Your task to perform on an android device: install app "Upside-Cash back on gas & food" Image 0: 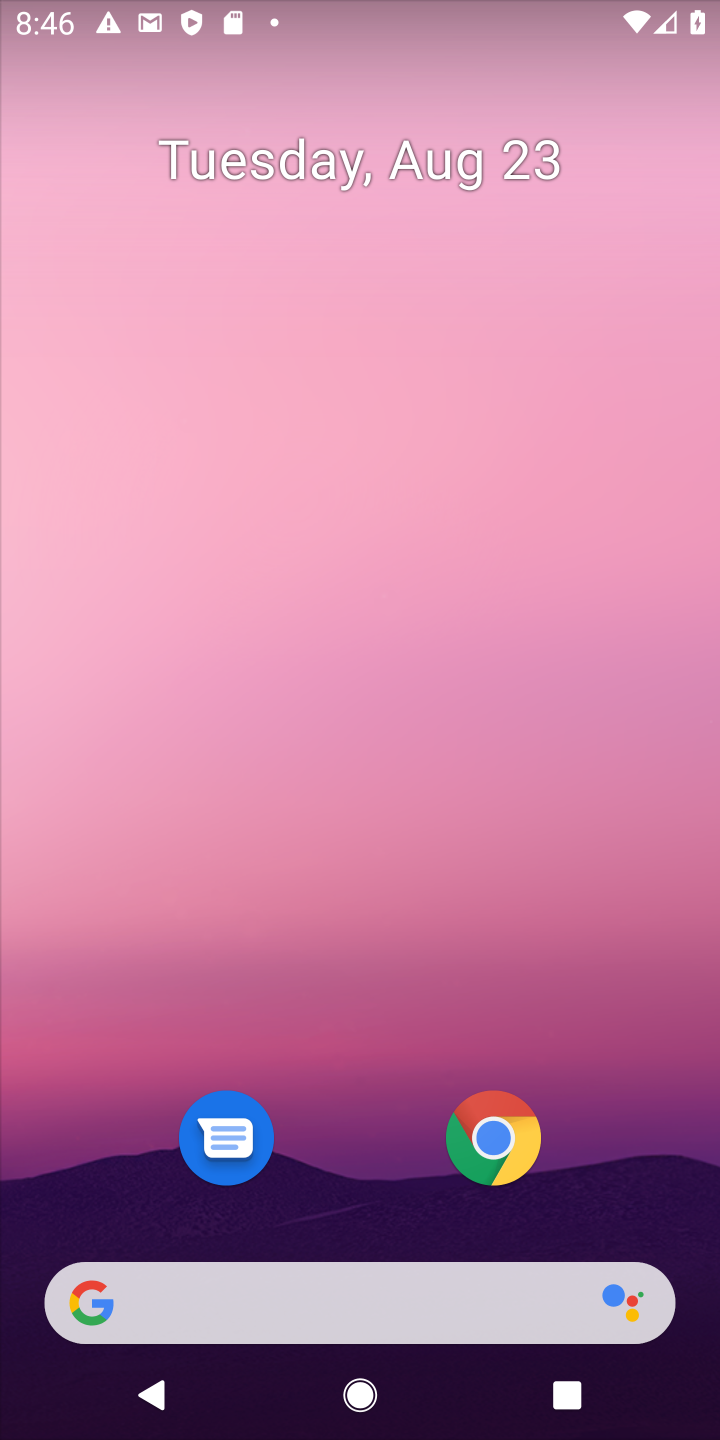
Step 0: press home button
Your task to perform on an android device: install app "Upside-Cash back on gas & food" Image 1: 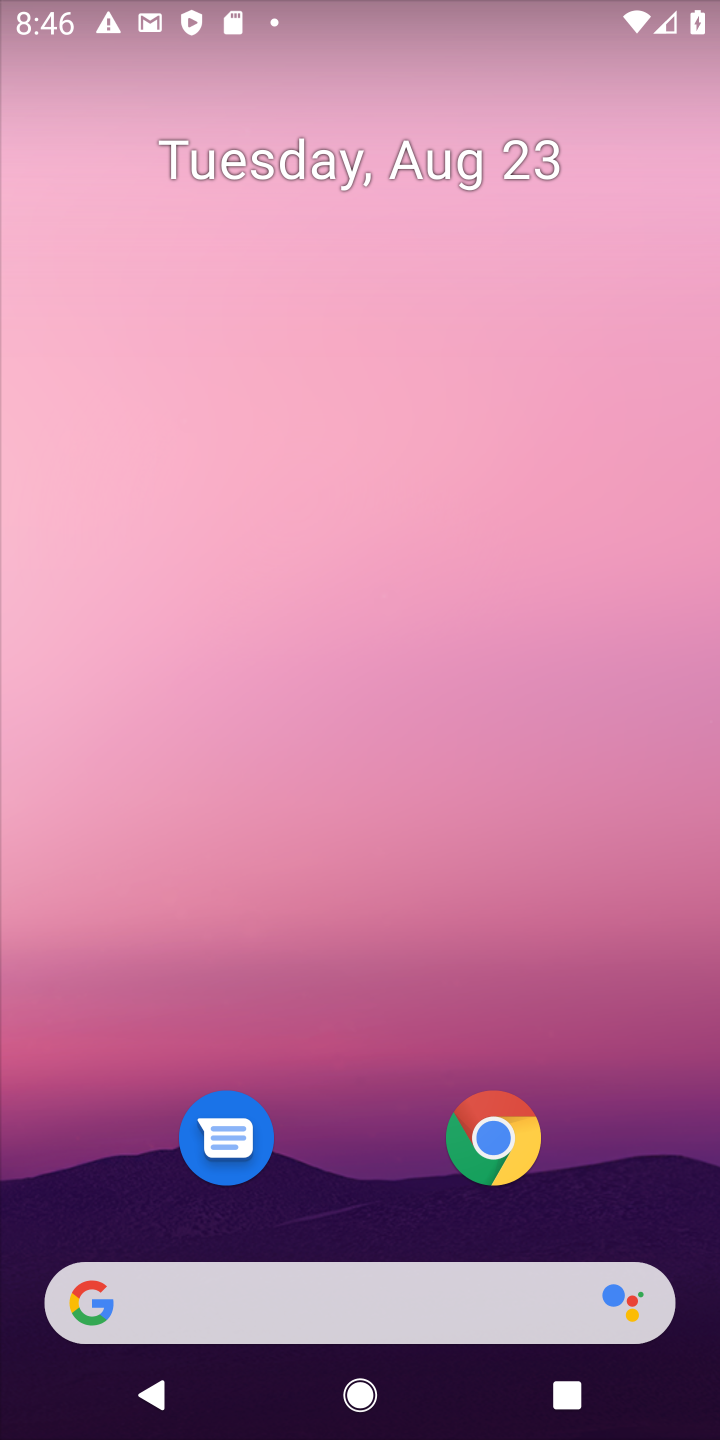
Step 1: drag from (589, 1090) to (611, 62)
Your task to perform on an android device: install app "Upside-Cash back on gas & food" Image 2: 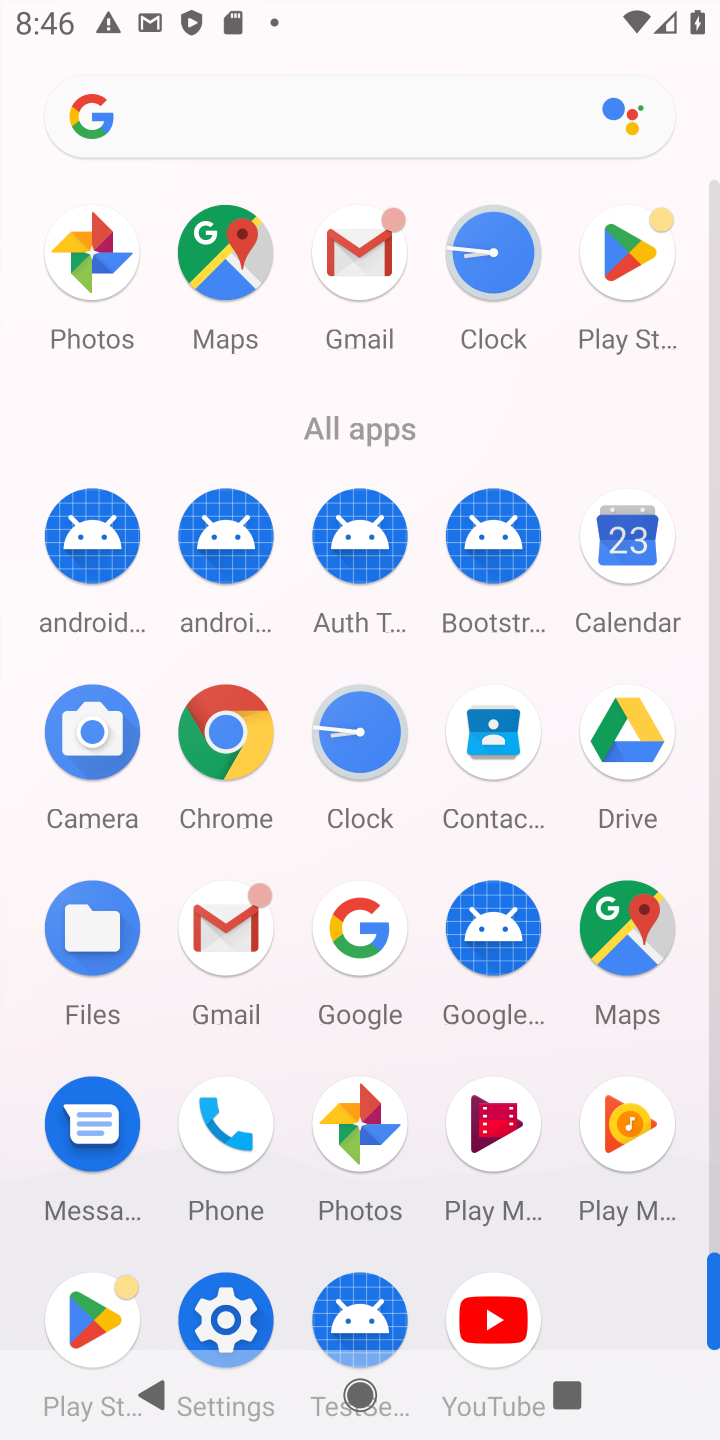
Step 2: click (633, 264)
Your task to perform on an android device: install app "Upside-Cash back on gas & food" Image 3: 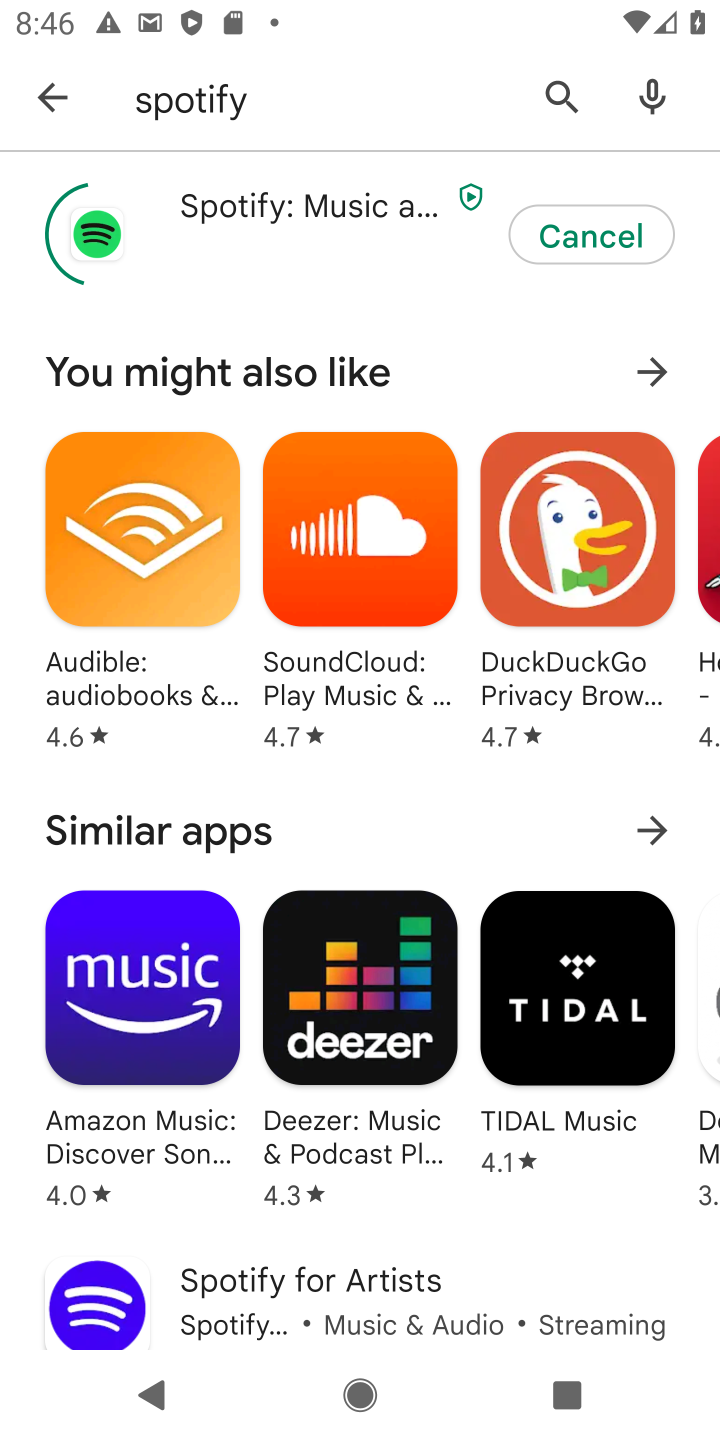
Step 3: press back button
Your task to perform on an android device: install app "Upside-Cash back on gas & food" Image 4: 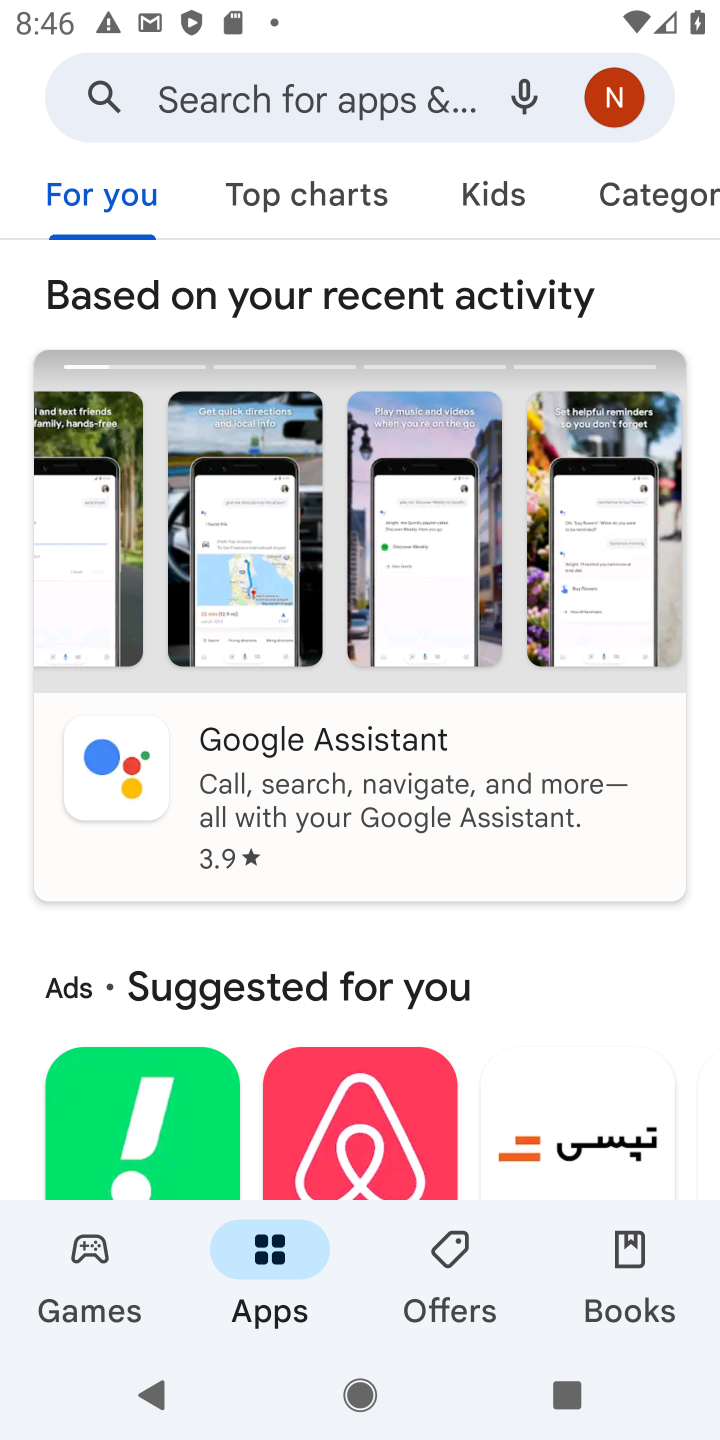
Step 4: click (217, 99)
Your task to perform on an android device: install app "Upside-Cash back on gas & food" Image 5: 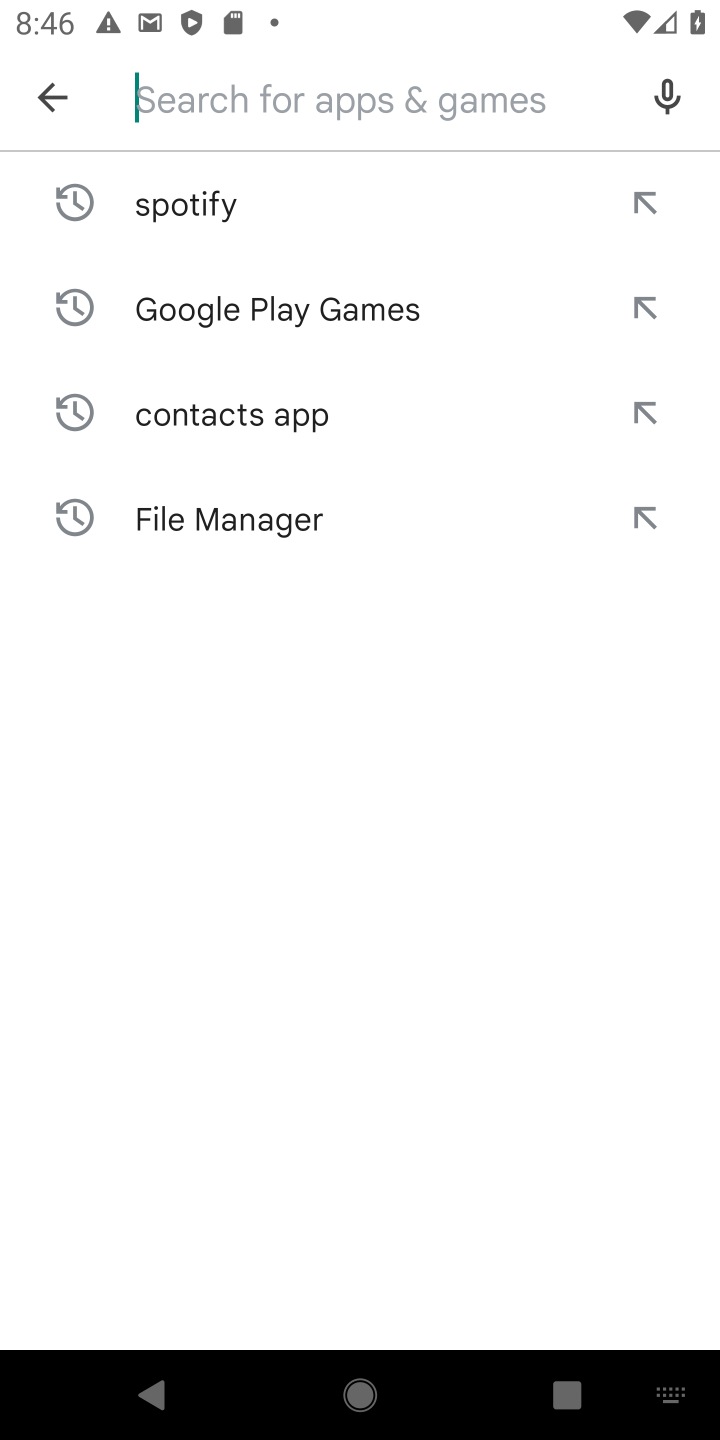
Step 5: type "Upside-Cash back on gas & food"
Your task to perform on an android device: install app "Upside-Cash back on gas & food" Image 6: 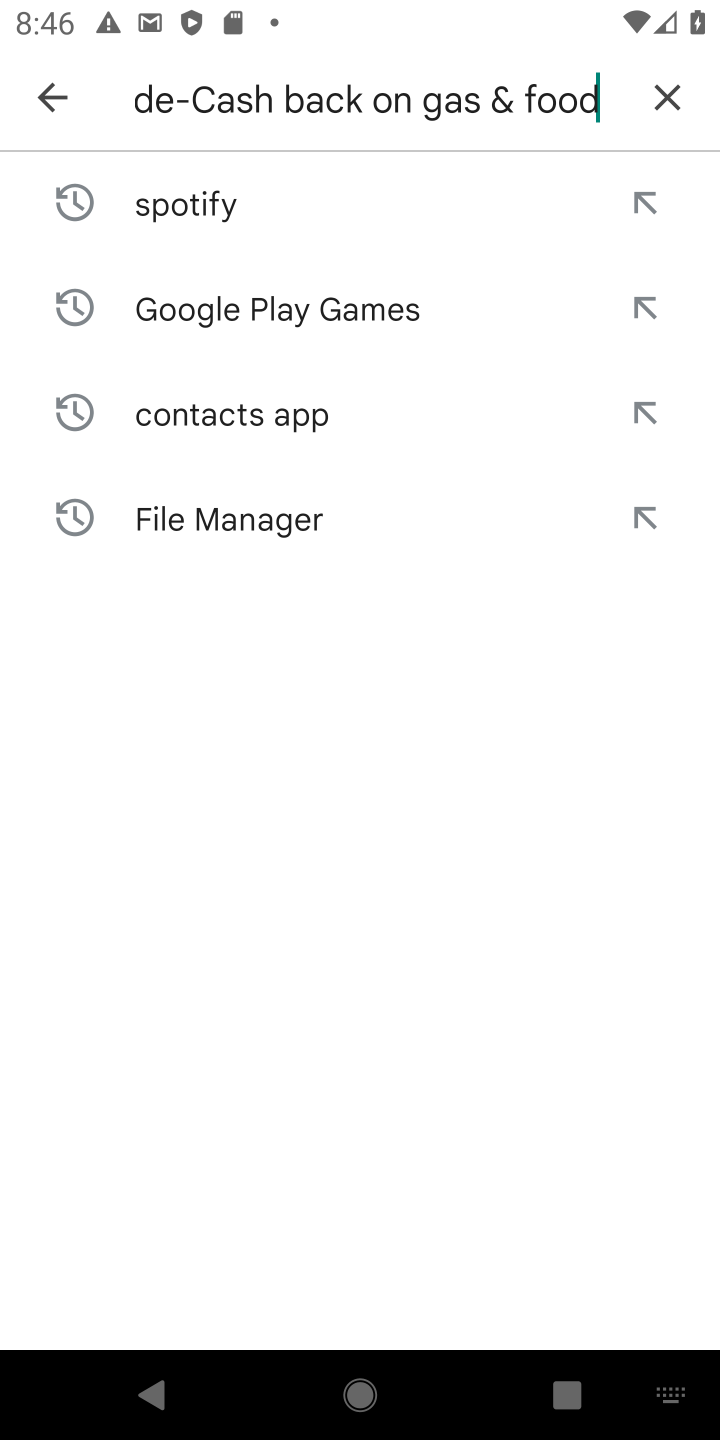
Step 6: press enter
Your task to perform on an android device: install app "Upside-Cash back on gas & food" Image 7: 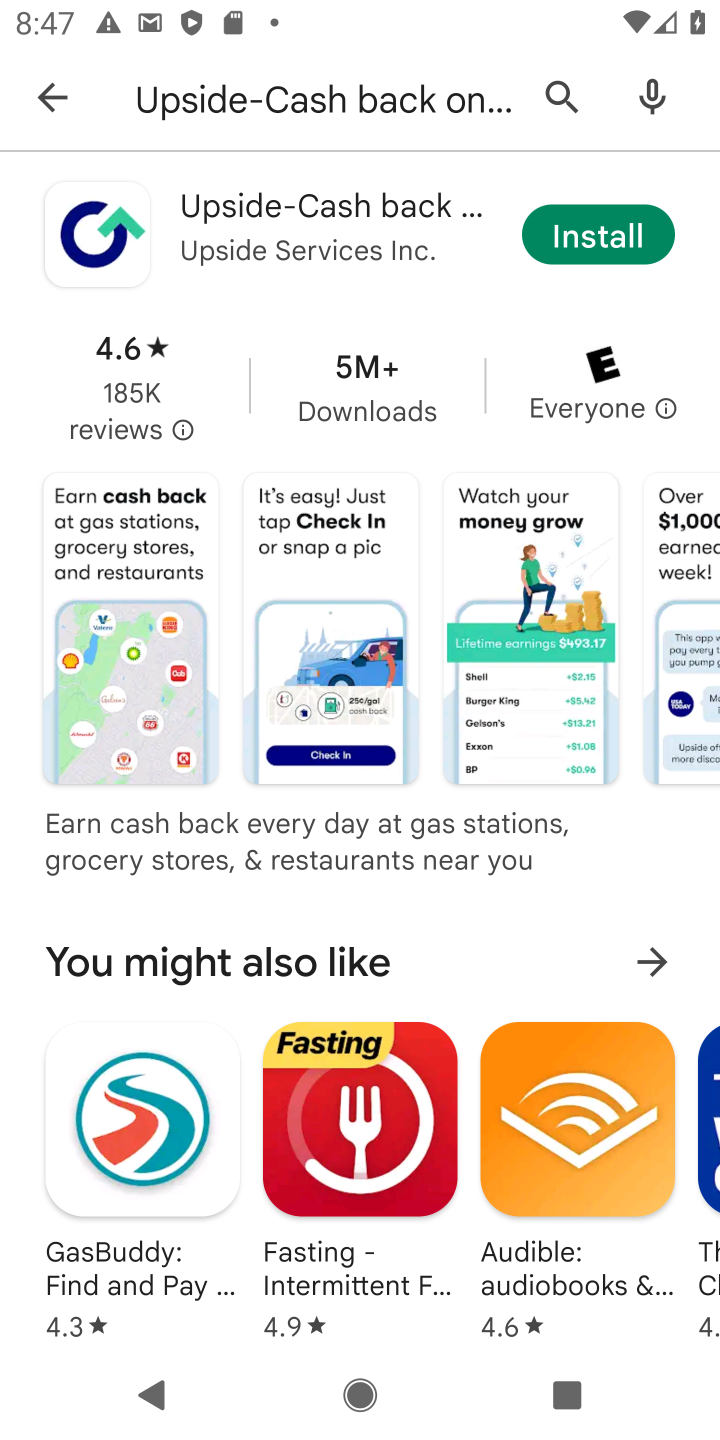
Step 7: click (586, 243)
Your task to perform on an android device: install app "Upside-Cash back on gas & food" Image 8: 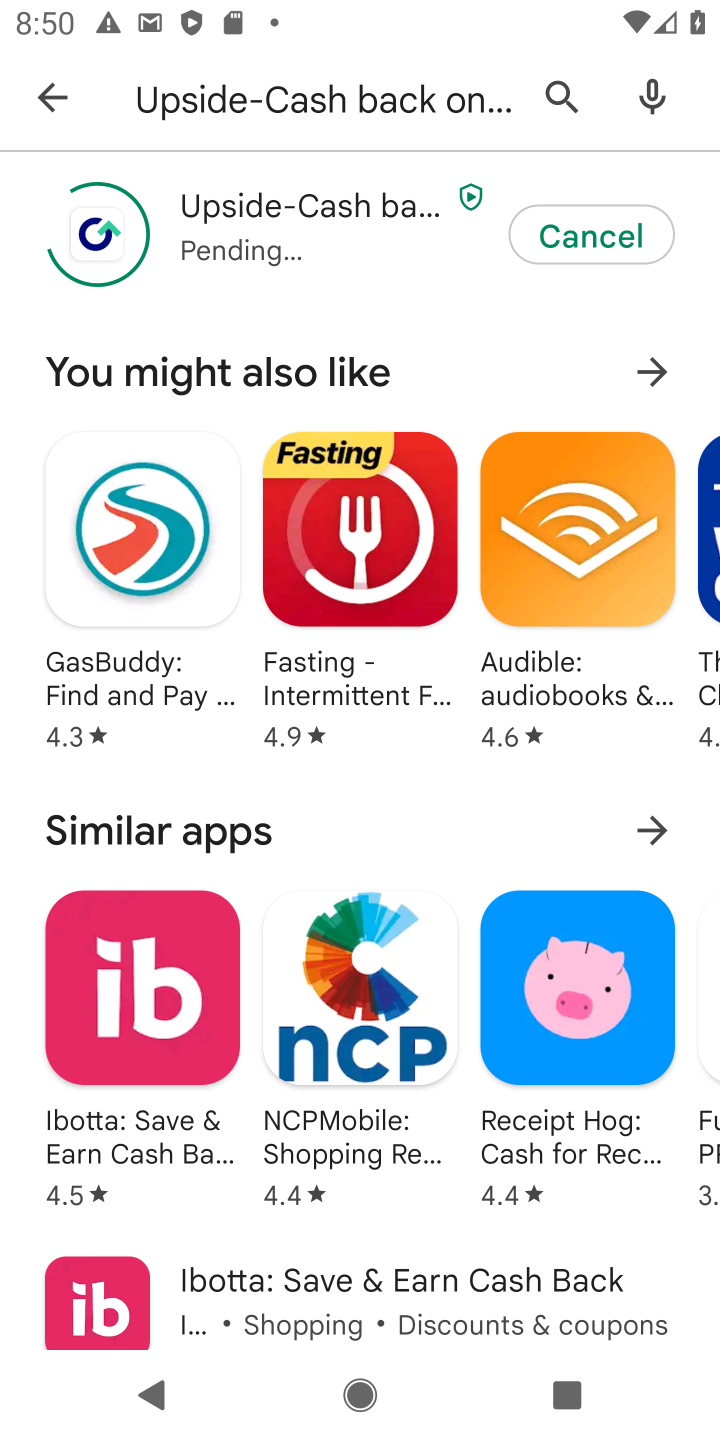
Step 8: task complete